Your task to perform on an android device: When is my next appointment? Image 0: 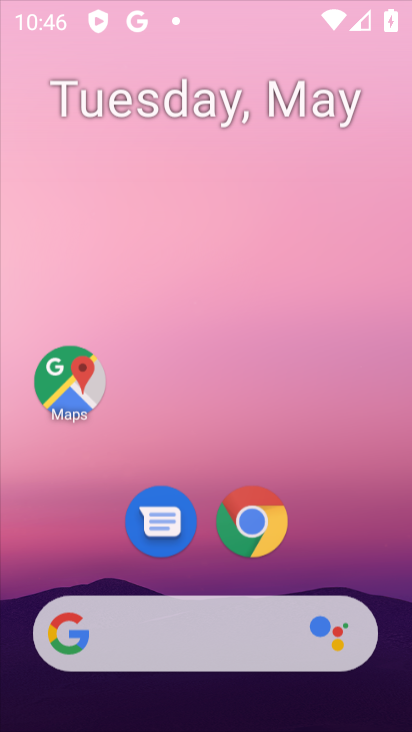
Step 0: click (334, 23)
Your task to perform on an android device: When is my next appointment? Image 1: 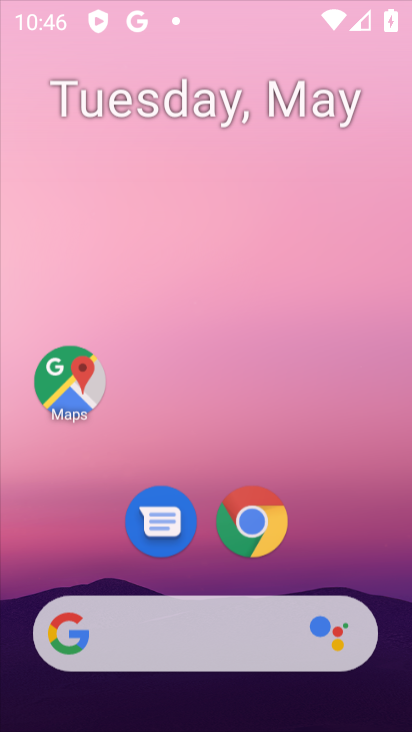
Step 1: press home button
Your task to perform on an android device: When is my next appointment? Image 2: 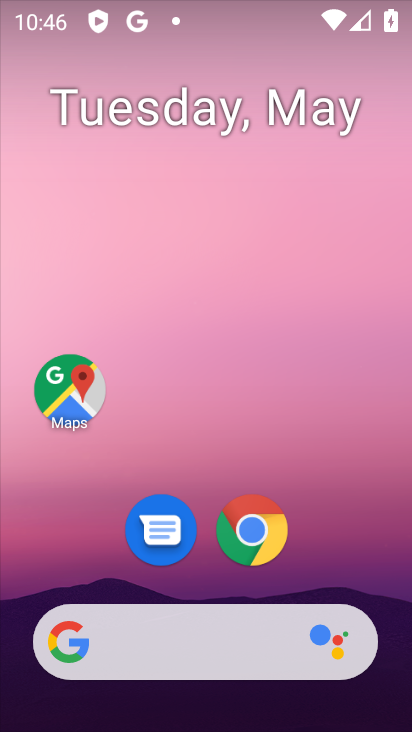
Step 2: press home button
Your task to perform on an android device: When is my next appointment? Image 3: 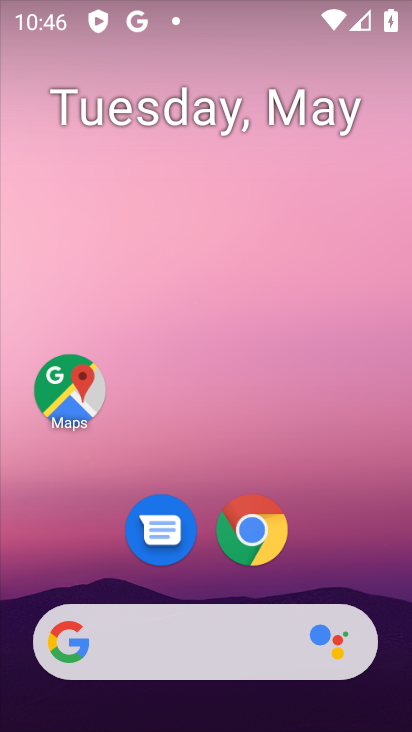
Step 3: drag from (335, 539) to (339, 133)
Your task to perform on an android device: When is my next appointment? Image 4: 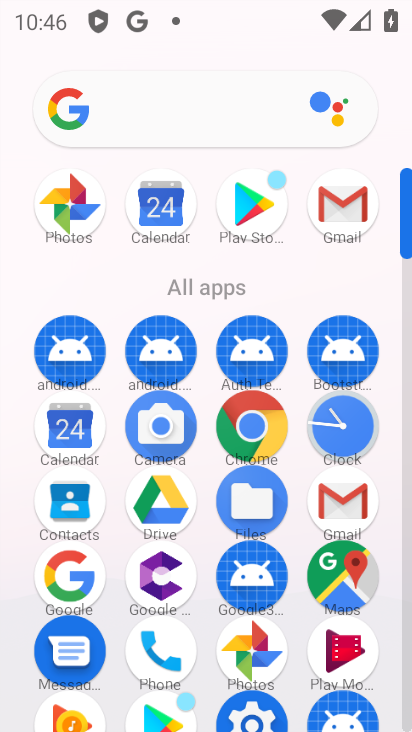
Step 4: click (83, 421)
Your task to perform on an android device: When is my next appointment? Image 5: 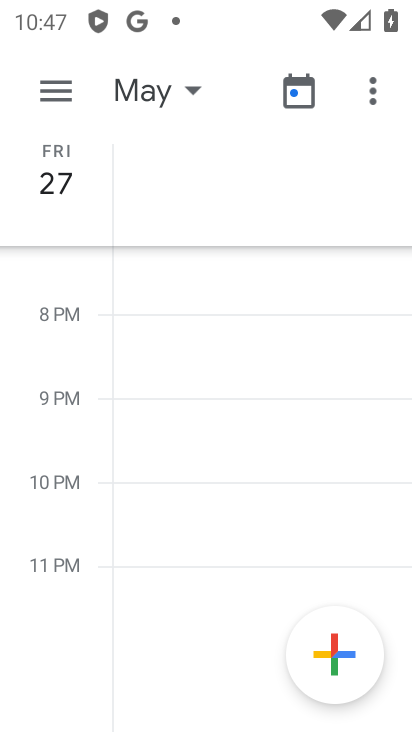
Step 5: click (177, 97)
Your task to perform on an android device: When is my next appointment? Image 6: 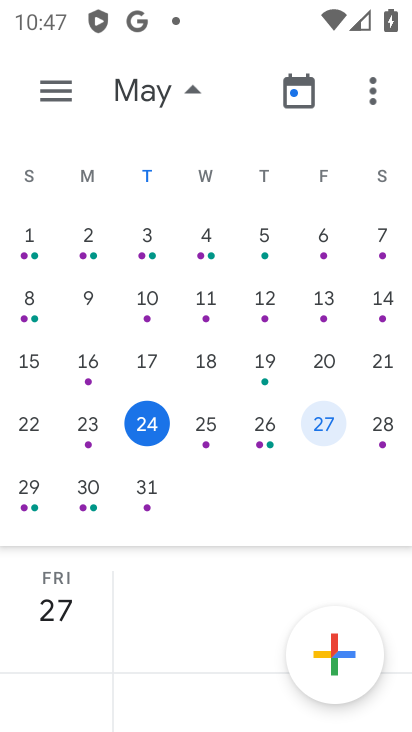
Step 6: click (151, 418)
Your task to perform on an android device: When is my next appointment? Image 7: 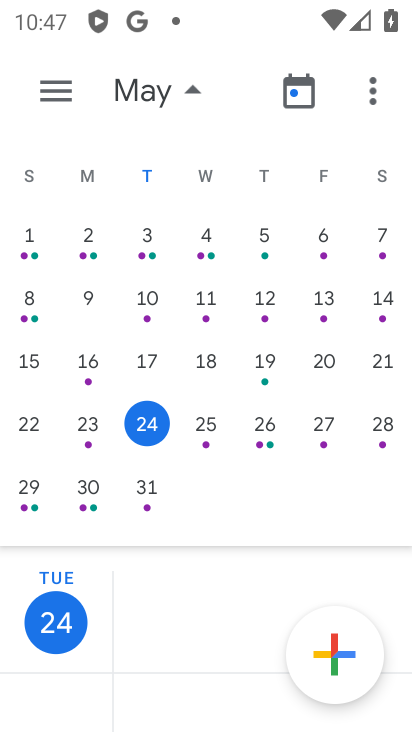
Step 7: drag from (211, 596) to (260, 143)
Your task to perform on an android device: When is my next appointment? Image 8: 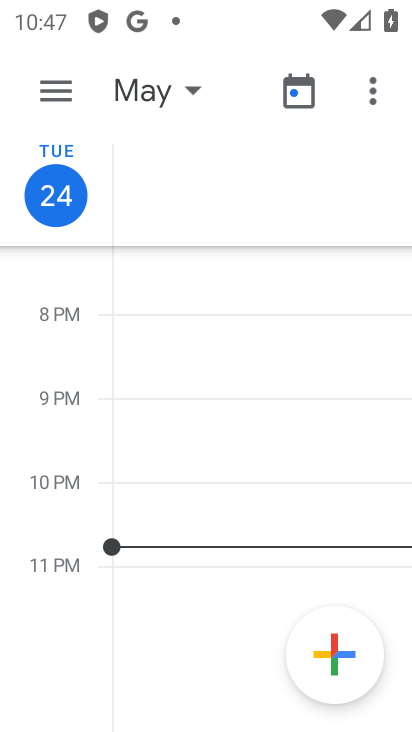
Step 8: click (146, 102)
Your task to perform on an android device: When is my next appointment? Image 9: 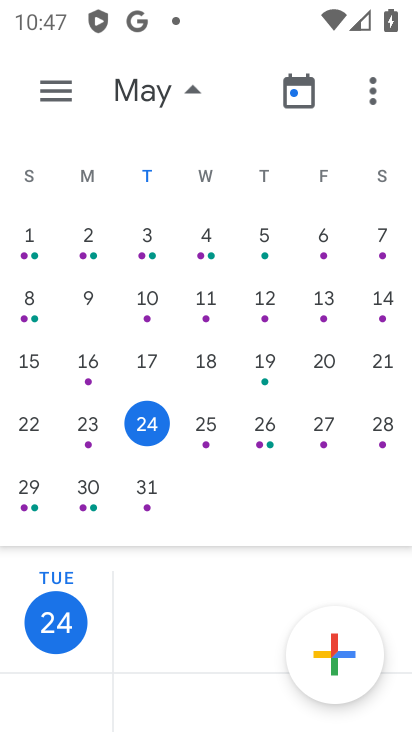
Step 9: click (57, 85)
Your task to perform on an android device: When is my next appointment? Image 10: 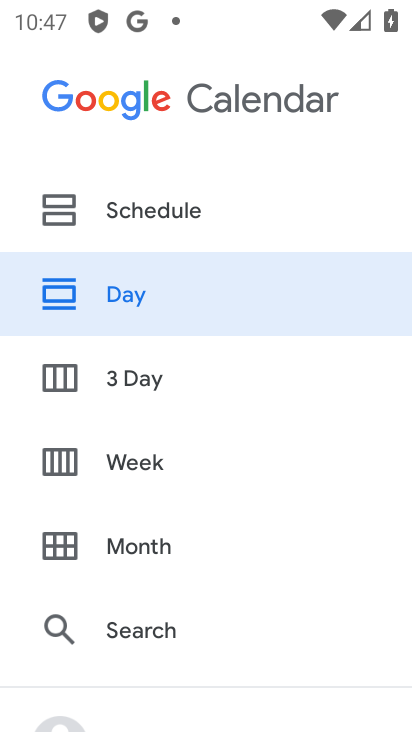
Step 10: click (154, 368)
Your task to perform on an android device: When is my next appointment? Image 11: 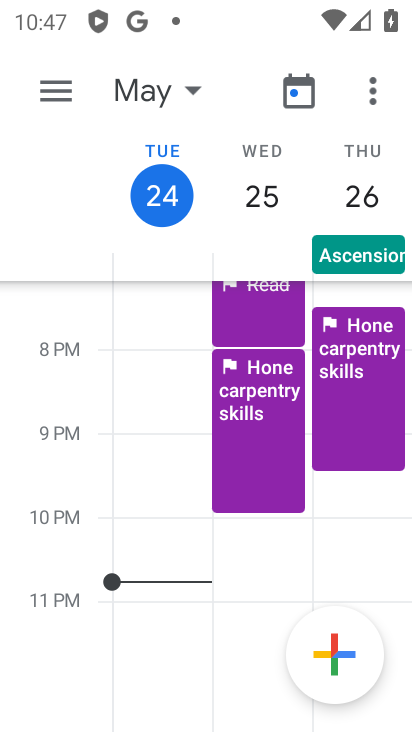
Step 11: task complete